Your task to perform on an android device: allow cookies in the chrome app Image 0: 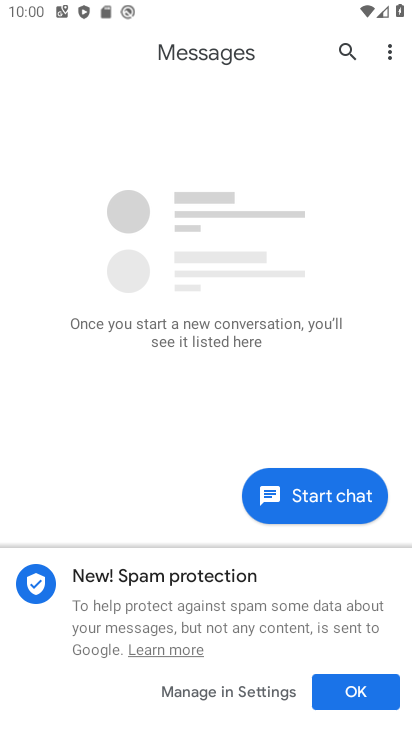
Step 0: drag from (214, 619) to (293, 129)
Your task to perform on an android device: allow cookies in the chrome app Image 1: 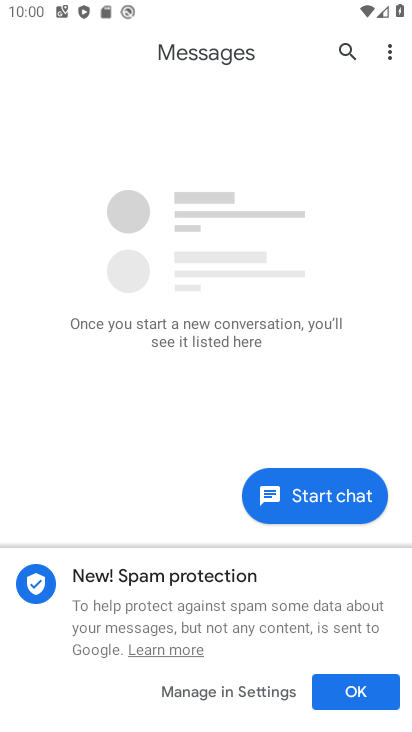
Step 1: drag from (241, 522) to (287, 151)
Your task to perform on an android device: allow cookies in the chrome app Image 2: 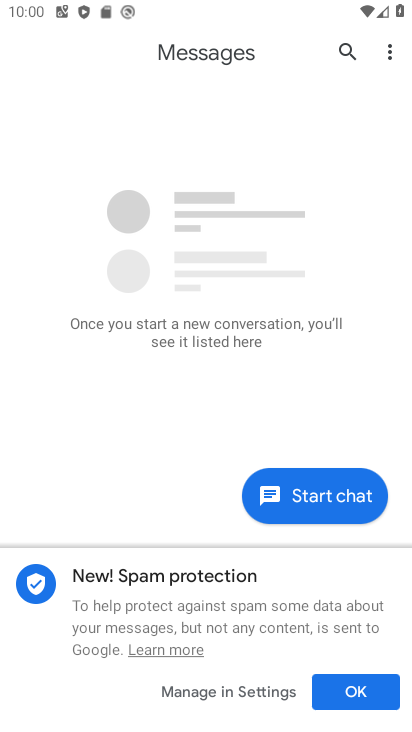
Step 2: press home button
Your task to perform on an android device: allow cookies in the chrome app Image 3: 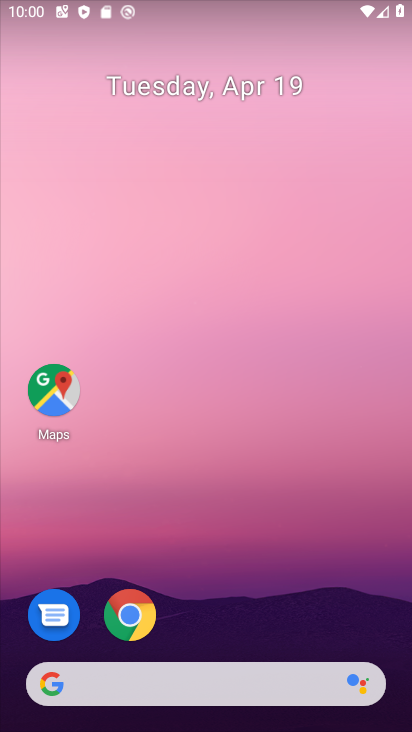
Step 3: drag from (204, 613) to (257, 159)
Your task to perform on an android device: allow cookies in the chrome app Image 4: 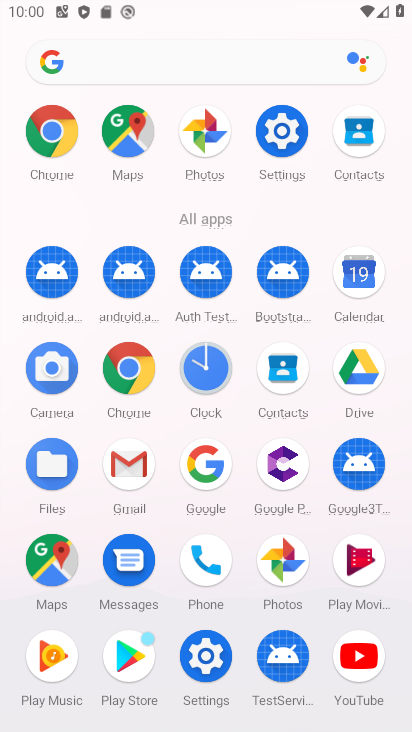
Step 4: click (130, 368)
Your task to perform on an android device: allow cookies in the chrome app Image 5: 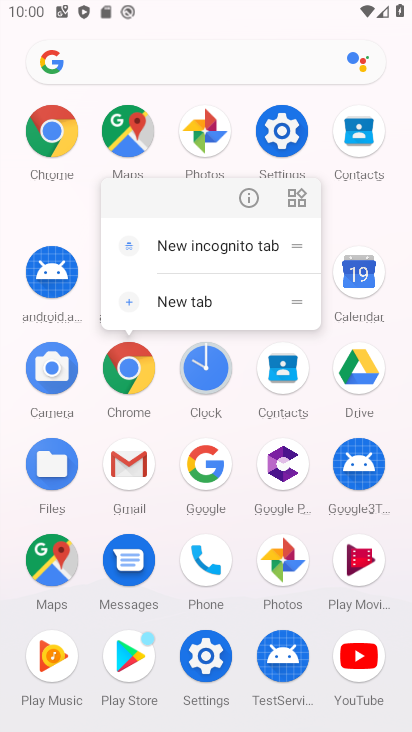
Step 5: click (254, 193)
Your task to perform on an android device: allow cookies in the chrome app Image 6: 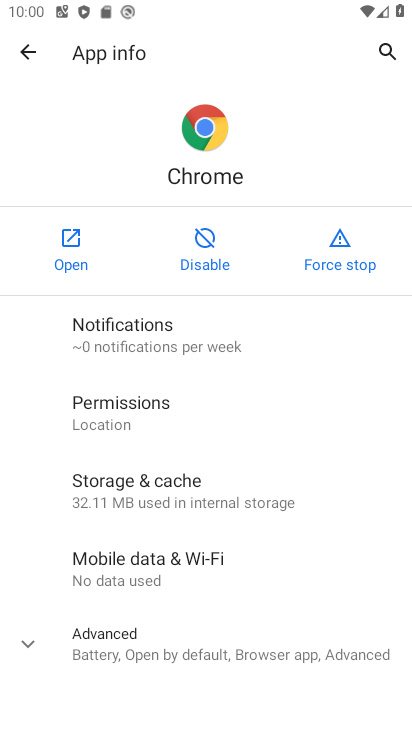
Step 6: click (75, 263)
Your task to perform on an android device: allow cookies in the chrome app Image 7: 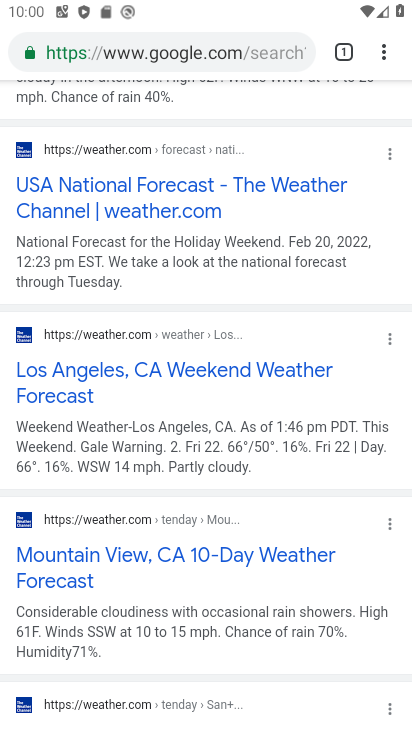
Step 7: drag from (230, 148) to (288, 731)
Your task to perform on an android device: allow cookies in the chrome app Image 8: 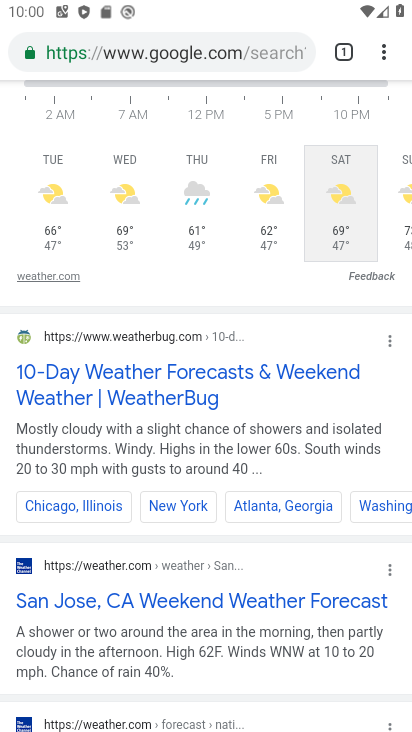
Step 8: drag from (222, 234) to (271, 666)
Your task to perform on an android device: allow cookies in the chrome app Image 9: 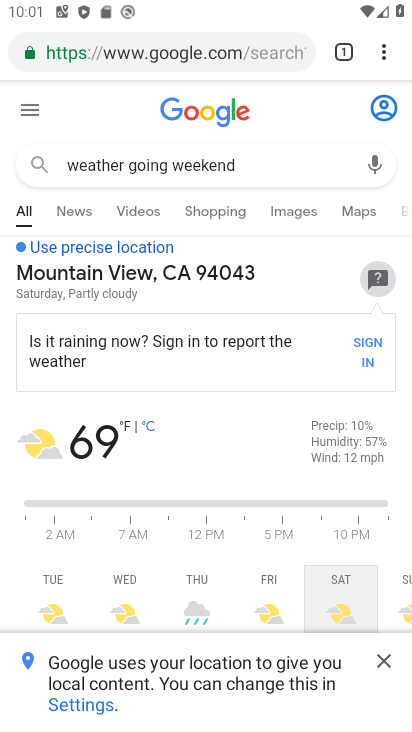
Step 9: drag from (249, 479) to (286, 156)
Your task to perform on an android device: allow cookies in the chrome app Image 10: 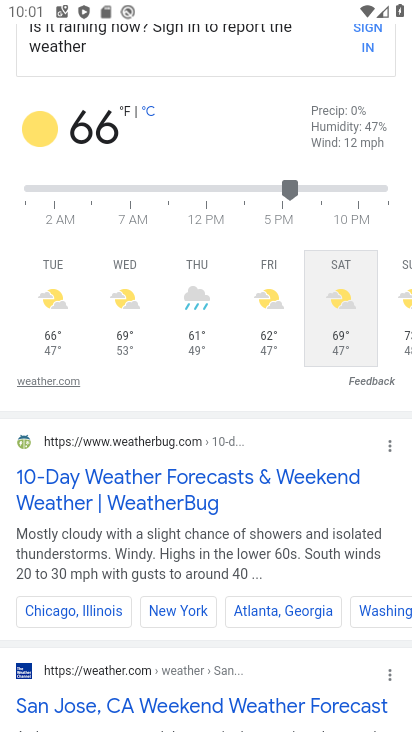
Step 10: drag from (264, 464) to (270, 177)
Your task to perform on an android device: allow cookies in the chrome app Image 11: 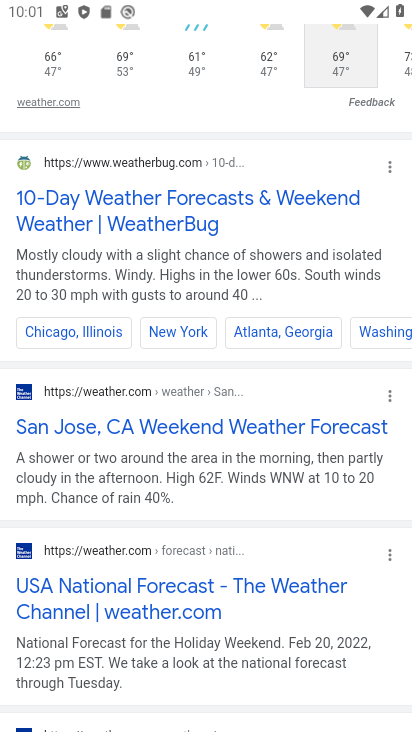
Step 11: drag from (252, 627) to (337, 221)
Your task to perform on an android device: allow cookies in the chrome app Image 12: 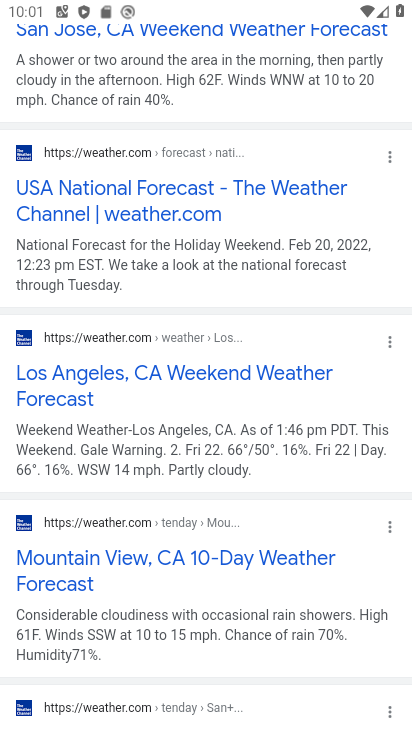
Step 12: drag from (186, 282) to (324, 528)
Your task to perform on an android device: allow cookies in the chrome app Image 13: 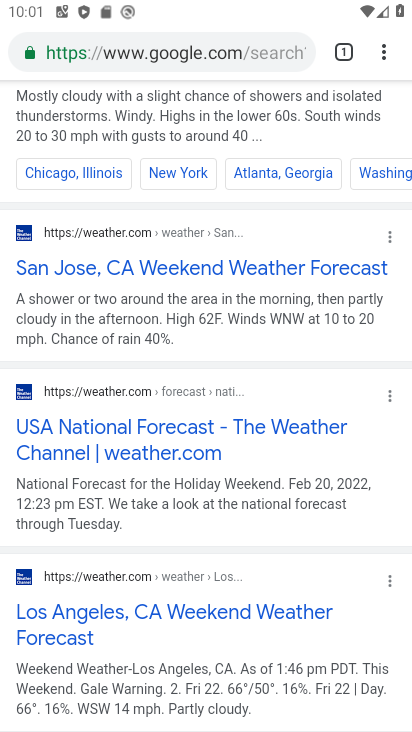
Step 13: drag from (225, 357) to (405, 403)
Your task to perform on an android device: allow cookies in the chrome app Image 14: 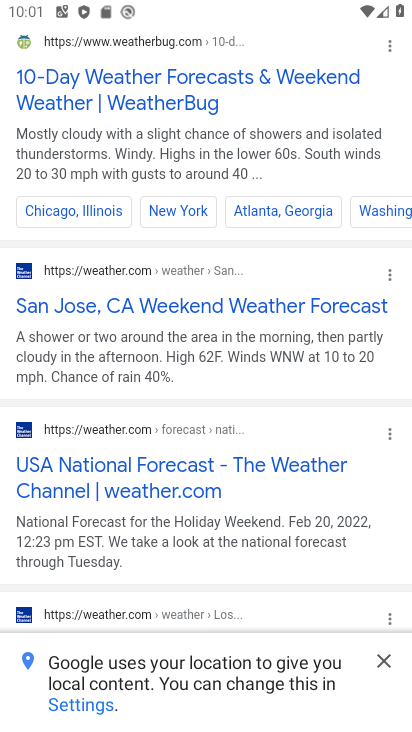
Step 14: click (384, 53)
Your task to perform on an android device: allow cookies in the chrome app Image 15: 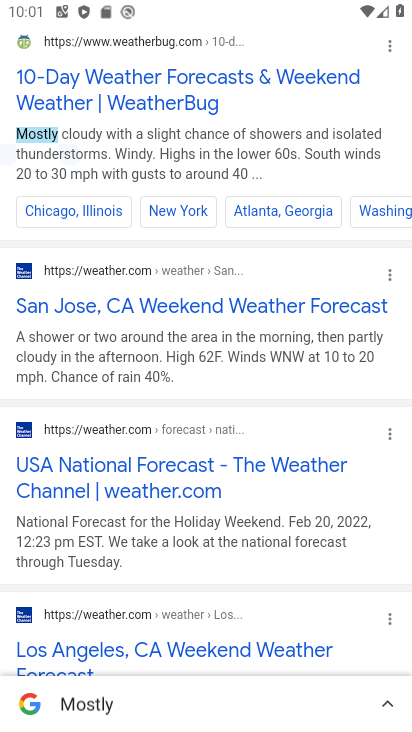
Step 15: drag from (252, 219) to (318, 652)
Your task to perform on an android device: allow cookies in the chrome app Image 16: 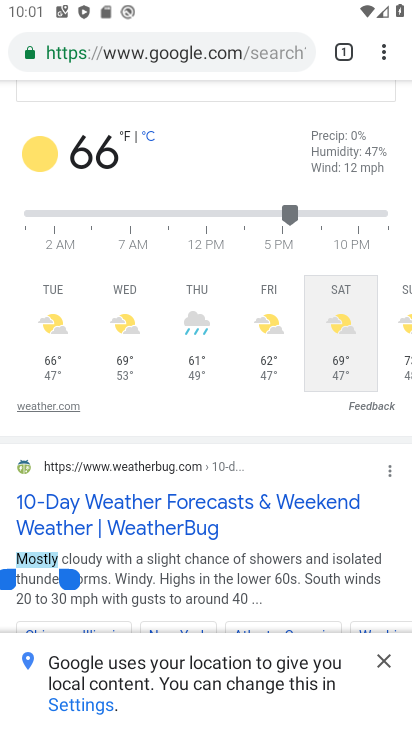
Step 16: drag from (385, 61) to (253, 577)
Your task to perform on an android device: allow cookies in the chrome app Image 17: 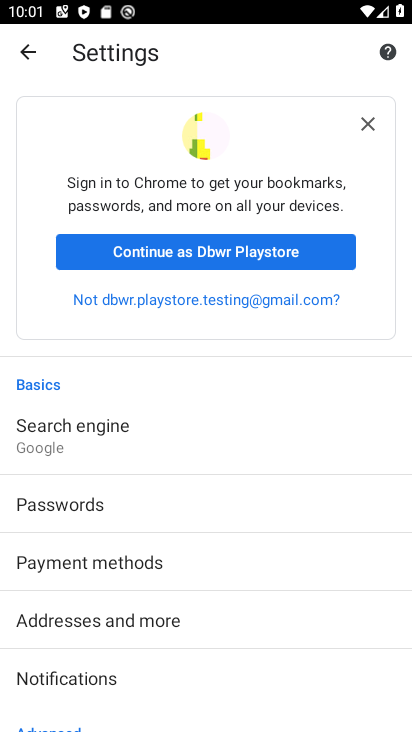
Step 17: drag from (183, 618) to (257, 167)
Your task to perform on an android device: allow cookies in the chrome app Image 18: 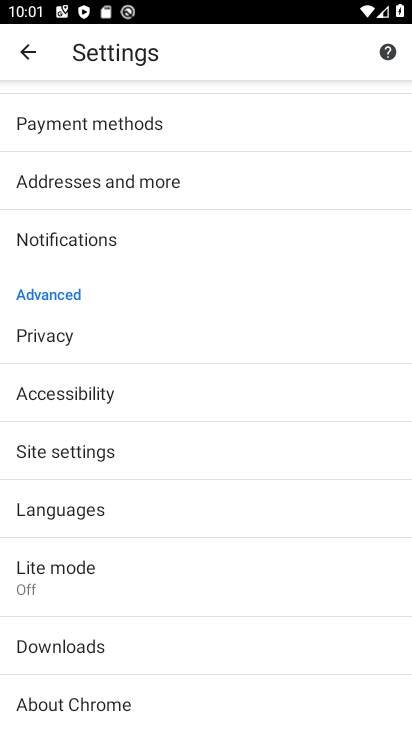
Step 18: drag from (202, 595) to (222, 262)
Your task to perform on an android device: allow cookies in the chrome app Image 19: 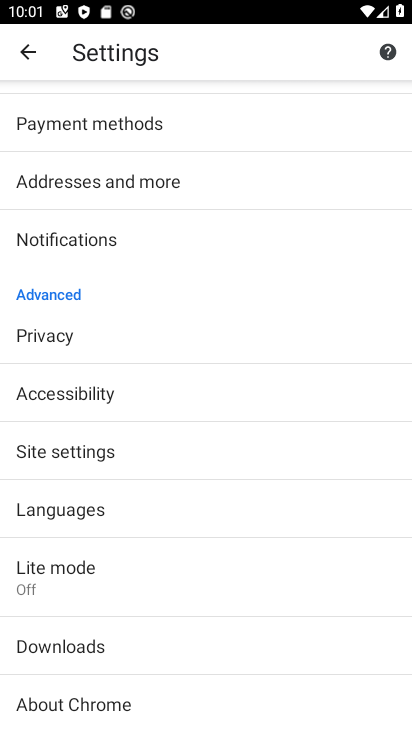
Step 19: click (143, 452)
Your task to perform on an android device: allow cookies in the chrome app Image 20: 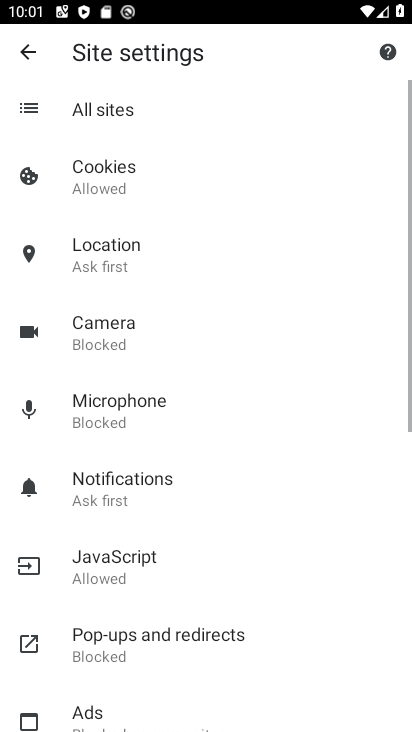
Step 20: click (109, 175)
Your task to perform on an android device: allow cookies in the chrome app Image 21: 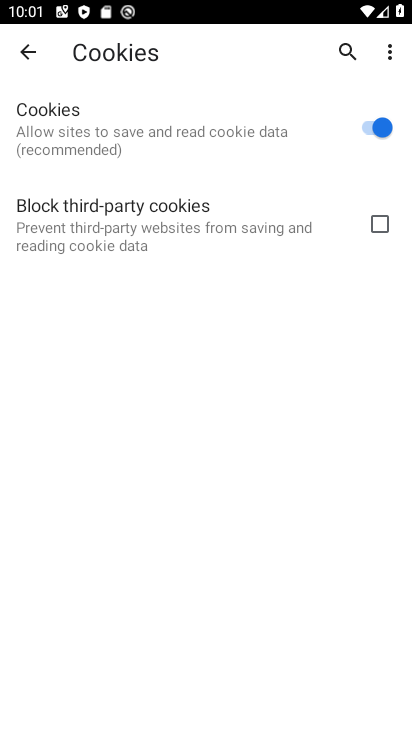
Step 21: task complete